Your task to perform on an android device: Show me recent news Image 0: 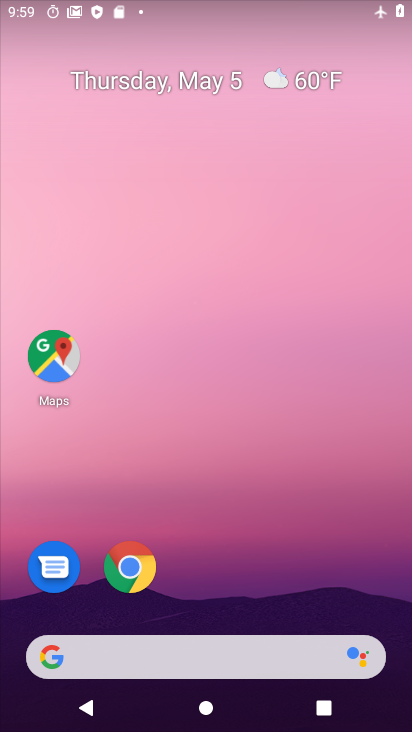
Step 0: drag from (298, 549) to (289, 76)
Your task to perform on an android device: Show me recent news Image 1: 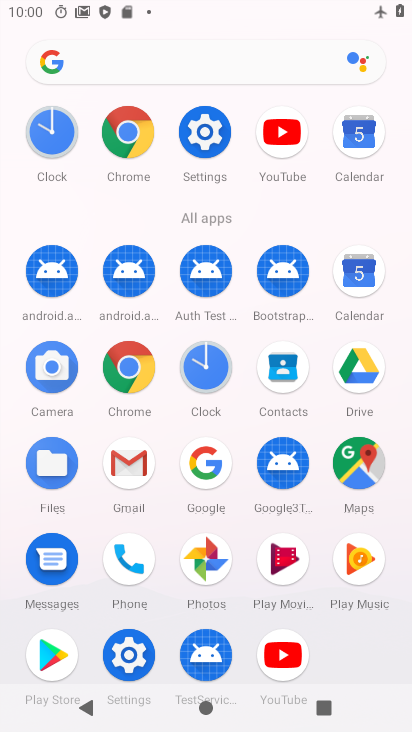
Step 1: click (122, 129)
Your task to perform on an android device: Show me recent news Image 2: 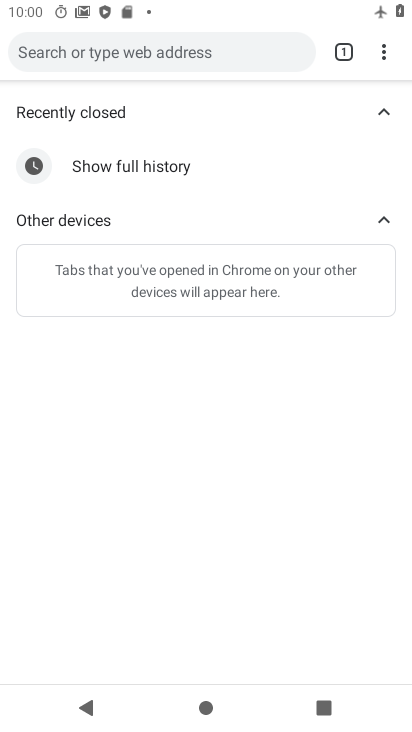
Step 2: task complete